Your task to perform on an android device: change text size in settings app Image 0: 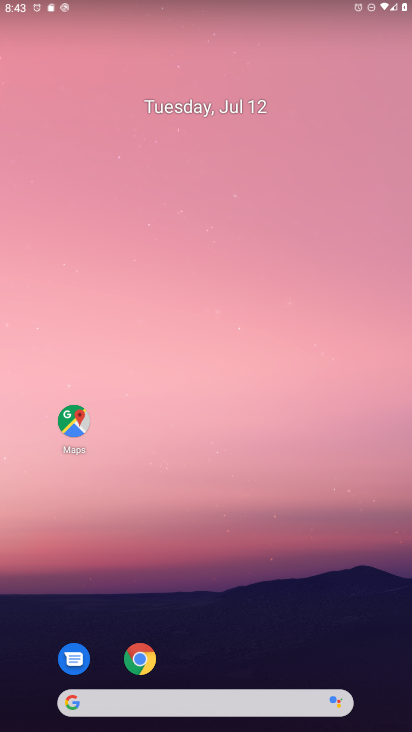
Step 0: drag from (187, 701) to (225, 109)
Your task to perform on an android device: change text size in settings app Image 1: 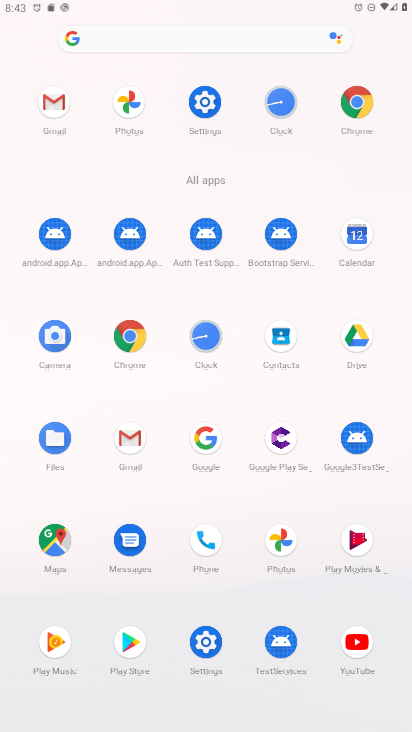
Step 1: click (206, 102)
Your task to perform on an android device: change text size in settings app Image 2: 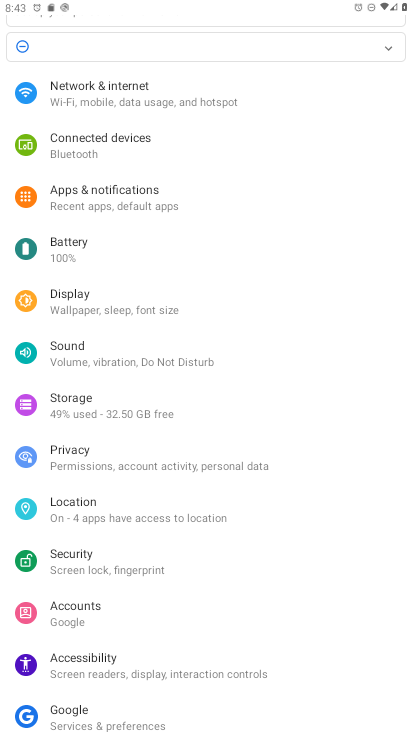
Step 2: click (85, 665)
Your task to perform on an android device: change text size in settings app Image 3: 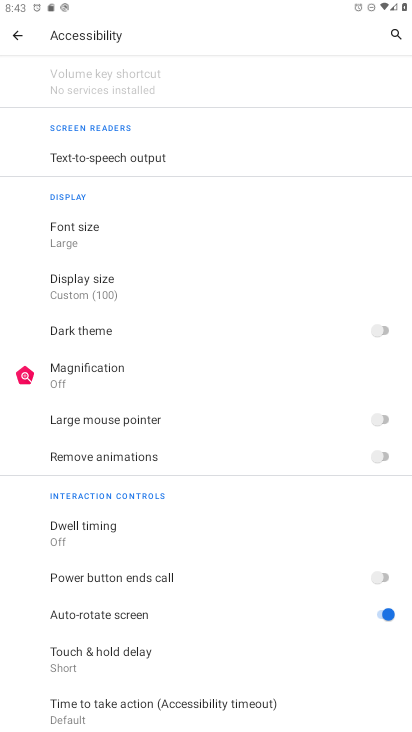
Step 3: click (66, 236)
Your task to perform on an android device: change text size in settings app Image 4: 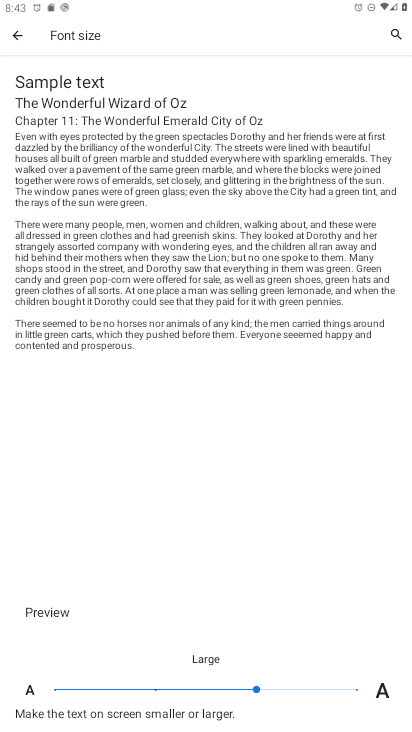
Step 4: click (359, 693)
Your task to perform on an android device: change text size in settings app Image 5: 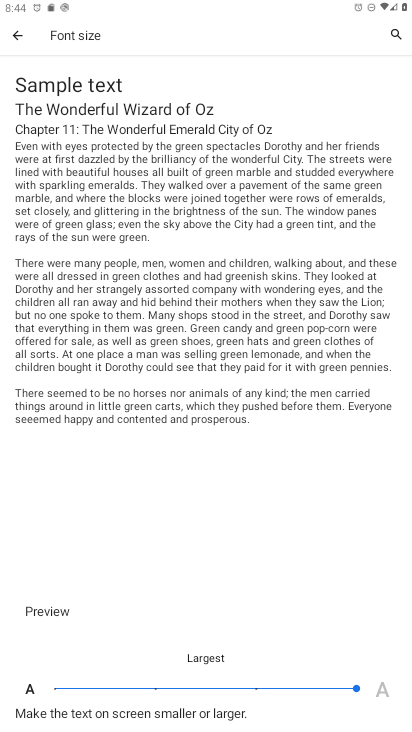
Step 5: task complete